Your task to perform on an android device: check the backup settings in the google photos Image 0: 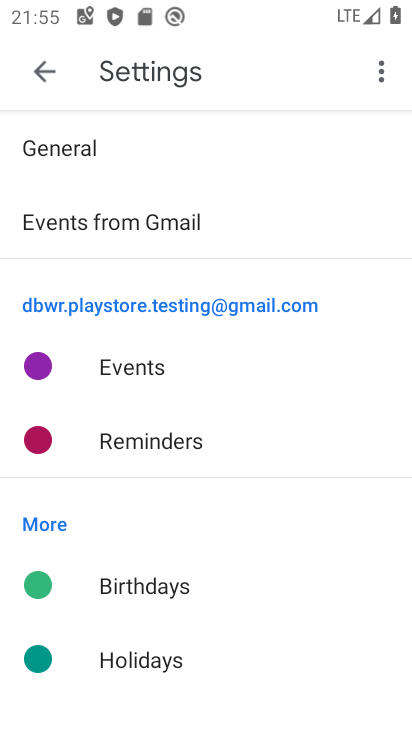
Step 0: press home button
Your task to perform on an android device: check the backup settings in the google photos Image 1: 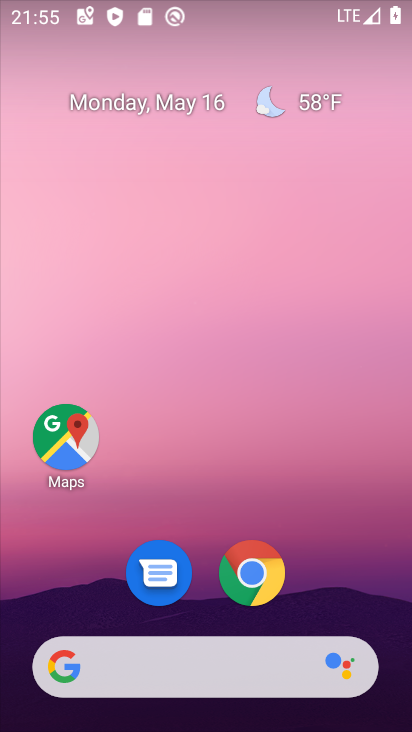
Step 1: drag from (202, 725) to (166, 140)
Your task to perform on an android device: check the backup settings in the google photos Image 2: 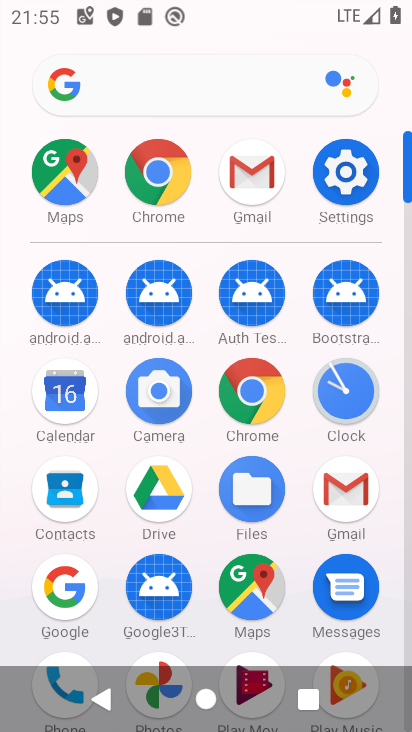
Step 2: drag from (198, 630) to (198, 218)
Your task to perform on an android device: check the backup settings in the google photos Image 3: 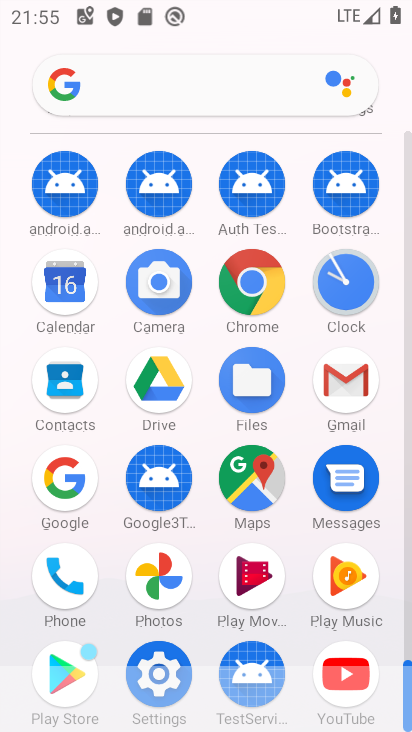
Step 3: click (159, 584)
Your task to perform on an android device: check the backup settings in the google photos Image 4: 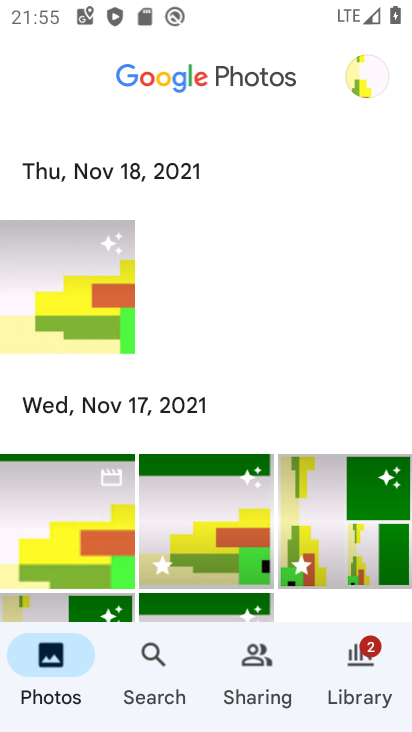
Step 4: click (367, 72)
Your task to perform on an android device: check the backup settings in the google photos Image 5: 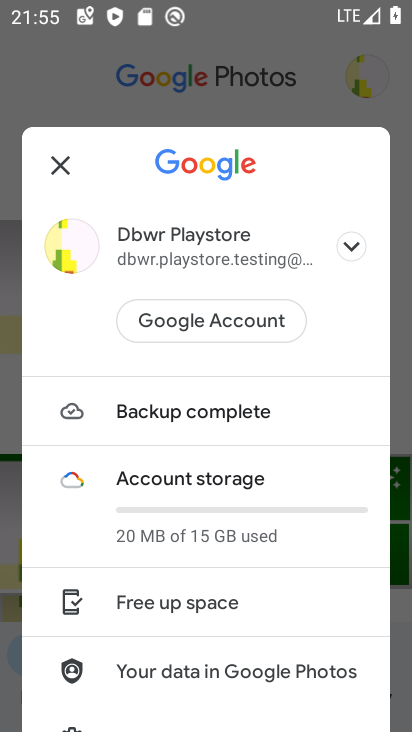
Step 5: drag from (183, 682) to (186, 284)
Your task to perform on an android device: check the backup settings in the google photos Image 6: 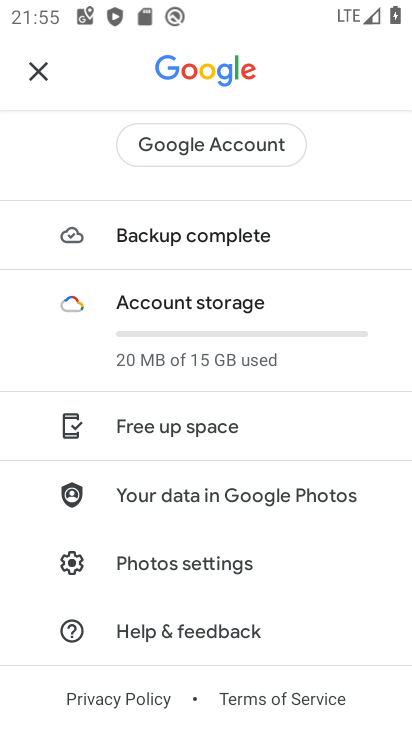
Step 6: click (171, 562)
Your task to perform on an android device: check the backup settings in the google photos Image 7: 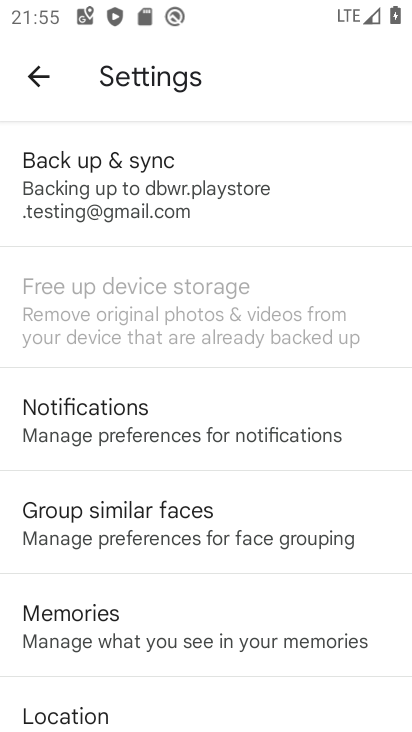
Step 7: click (107, 191)
Your task to perform on an android device: check the backup settings in the google photos Image 8: 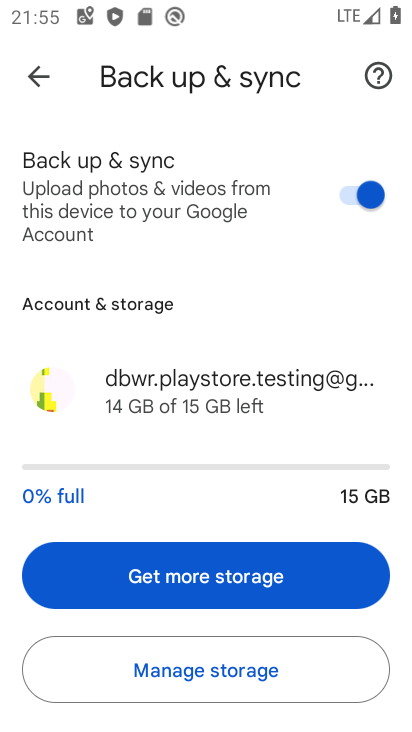
Step 8: task complete